Your task to perform on an android device: Go to network settings Image 0: 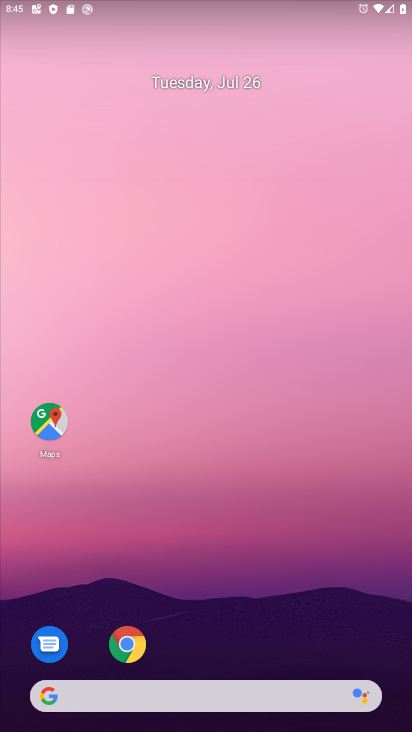
Step 0: drag from (253, 649) to (261, 211)
Your task to perform on an android device: Go to network settings Image 1: 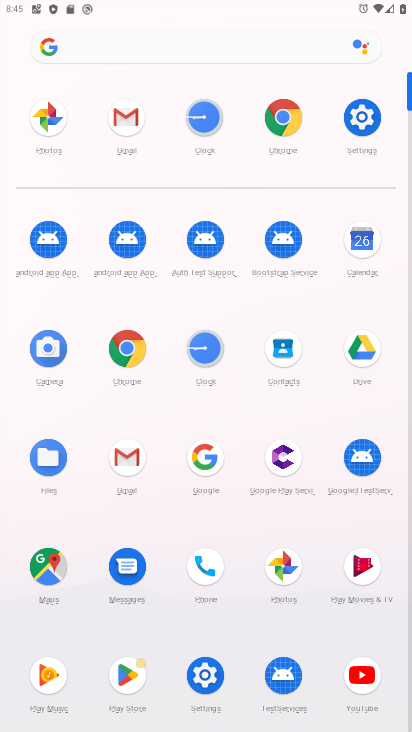
Step 1: click (348, 111)
Your task to perform on an android device: Go to network settings Image 2: 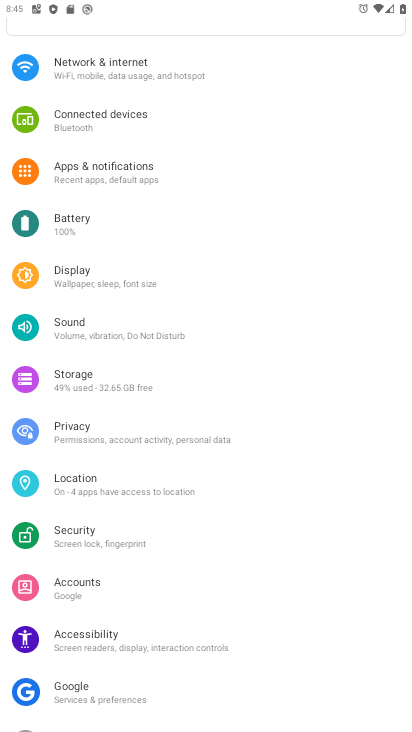
Step 2: click (115, 71)
Your task to perform on an android device: Go to network settings Image 3: 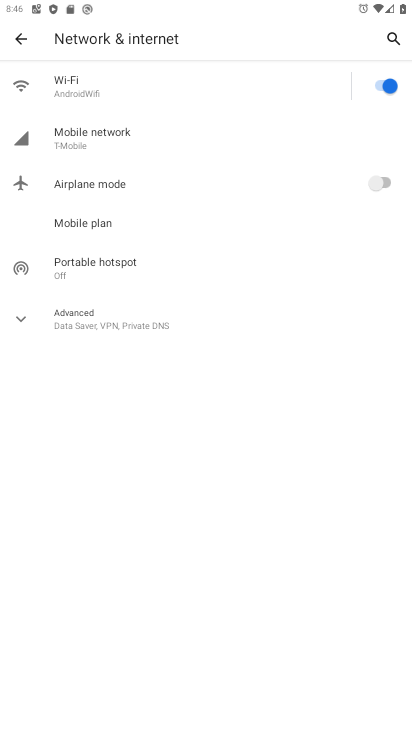
Step 3: task complete